Your task to perform on an android device: manage bookmarks in the chrome app Image 0: 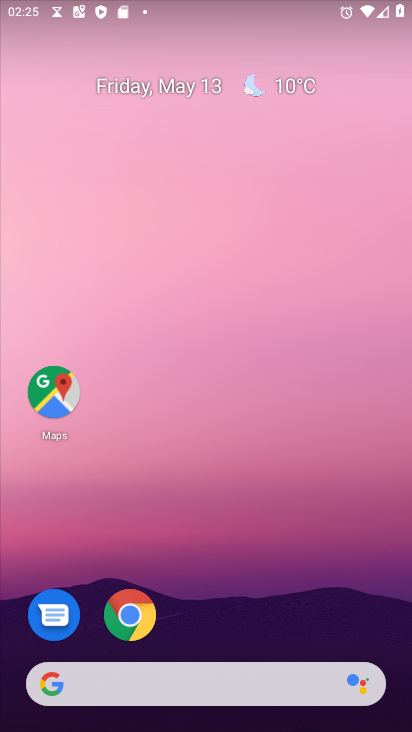
Step 0: click (120, 615)
Your task to perform on an android device: manage bookmarks in the chrome app Image 1: 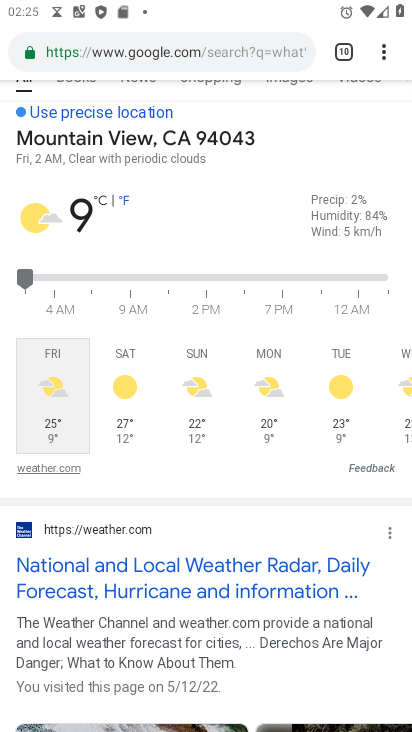
Step 1: click (383, 51)
Your task to perform on an android device: manage bookmarks in the chrome app Image 2: 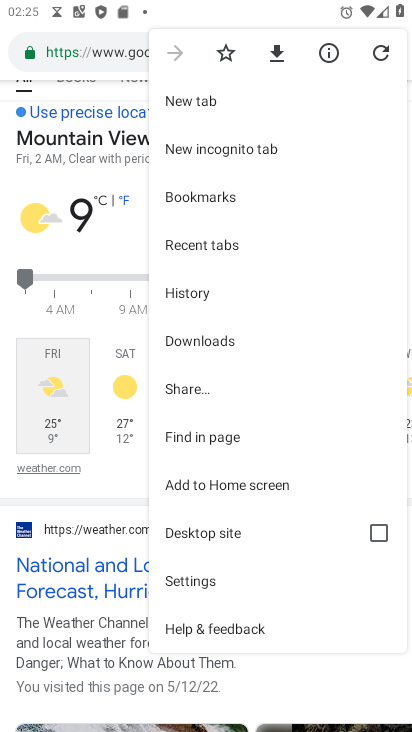
Step 2: click (172, 202)
Your task to perform on an android device: manage bookmarks in the chrome app Image 3: 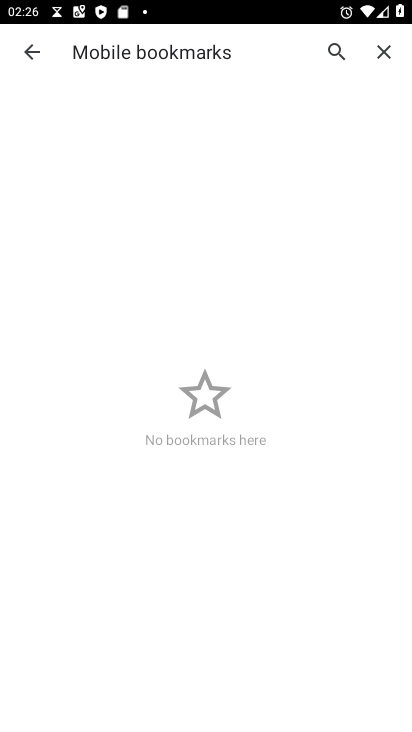
Step 3: task complete